Your task to perform on an android device: delete browsing data in the chrome app Image 0: 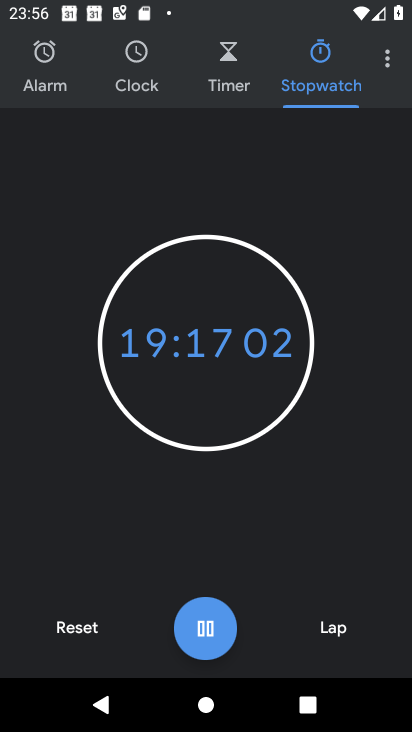
Step 0: press home button
Your task to perform on an android device: delete browsing data in the chrome app Image 1: 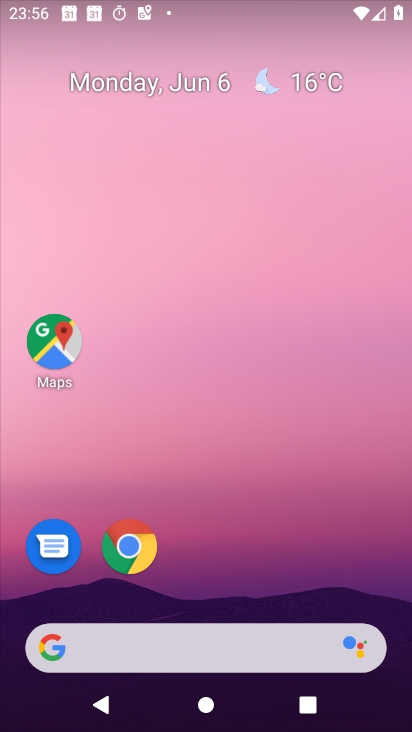
Step 1: click (136, 553)
Your task to perform on an android device: delete browsing data in the chrome app Image 2: 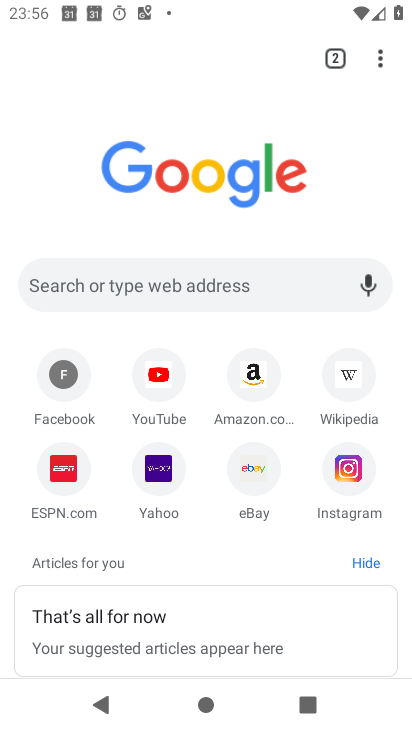
Step 2: click (382, 65)
Your task to perform on an android device: delete browsing data in the chrome app Image 3: 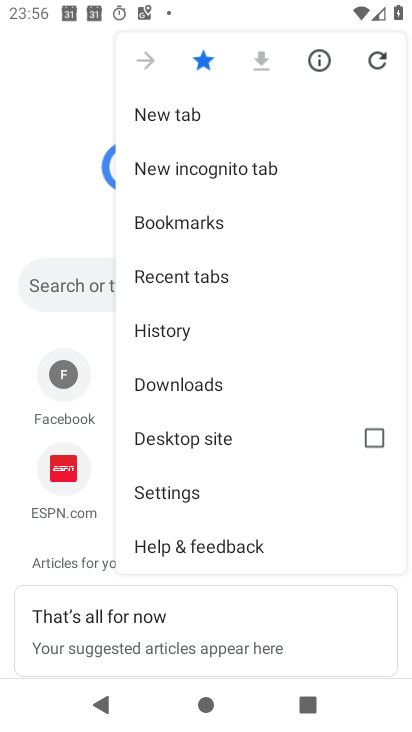
Step 3: click (199, 328)
Your task to perform on an android device: delete browsing data in the chrome app Image 4: 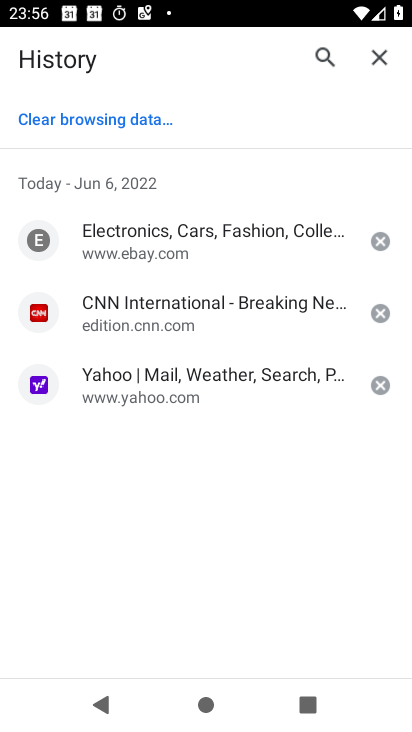
Step 4: click (88, 113)
Your task to perform on an android device: delete browsing data in the chrome app Image 5: 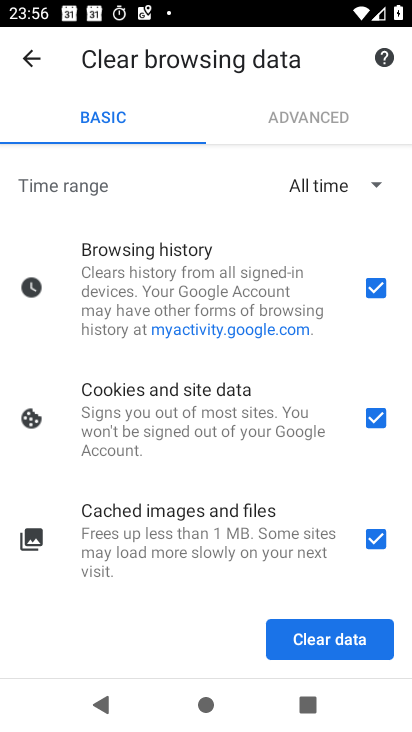
Step 5: click (345, 643)
Your task to perform on an android device: delete browsing data in the chrome app Image 6: 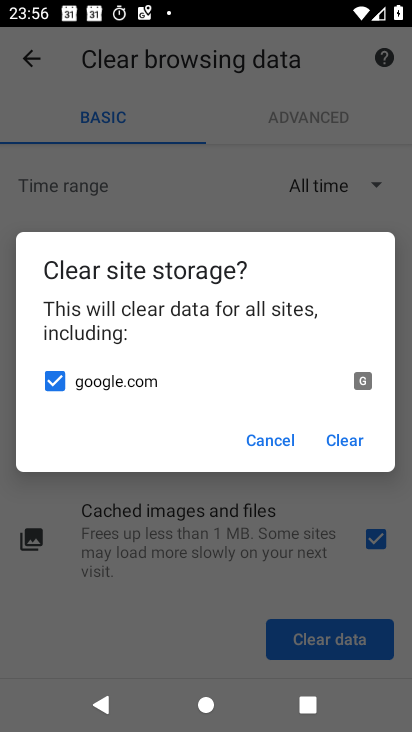
Step 6: click (340, 447)
Your task to perform on an android device: delete browsing data in the chrome app Image 7: 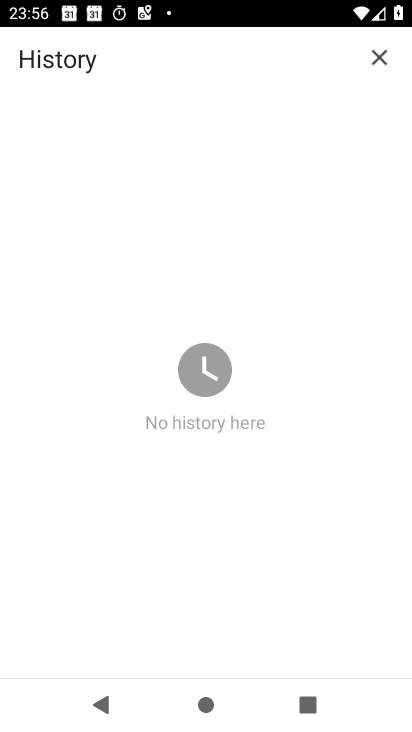
Step 7: task complete